Your task to perform on an android device: make emails show in primary in the gmail app Image 0: 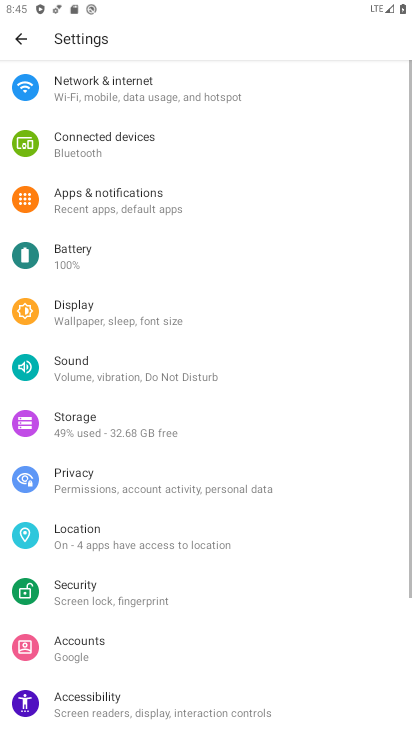
Step 0: press home button
Your task to perform on an android device: make emails show in primary in the gmail app Image 1: 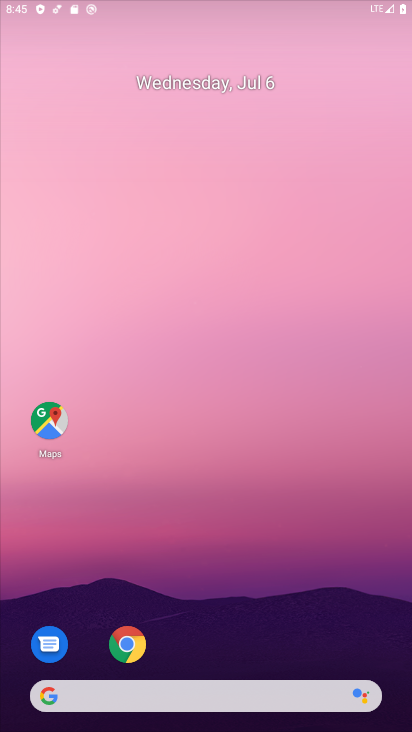
Step 1: drag from (218, 635) to (210, 82)
Your task to perform on an android device: make emails show in primary in the gmail app Image 2: 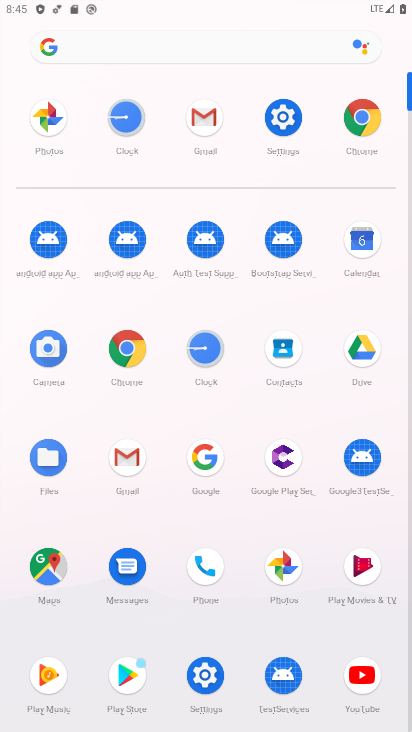
Step 2: click (215, 125)
Your task to perform on an android device: make emails show in primary in the gmail app Image 3: 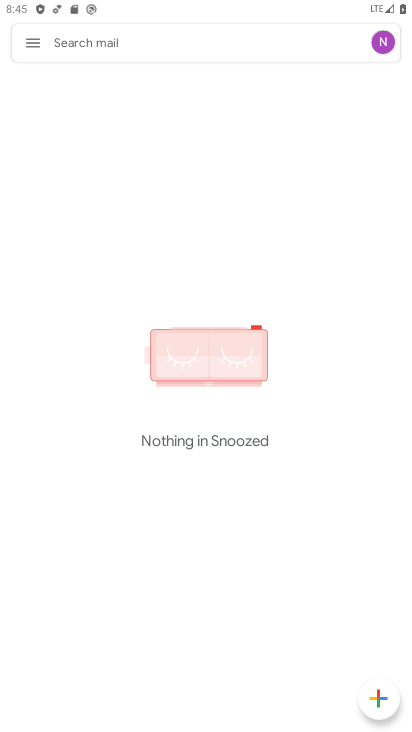
Step 3: click (28, 42)
Your task to perform on an android device: make emails show in primary in the gmail app Image 4: 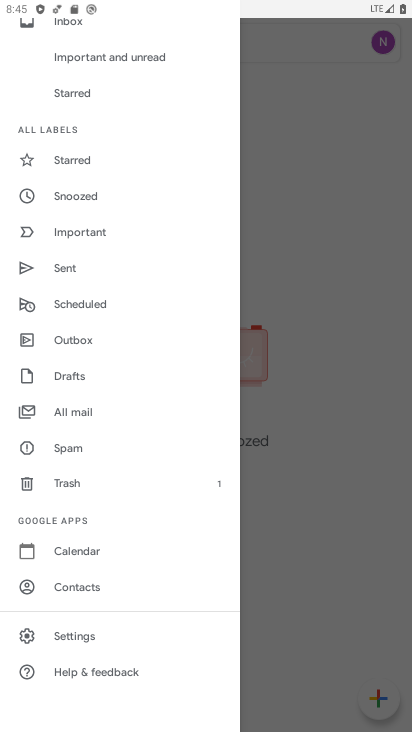
Step 4: click (71, 624)
Your task to perform on an android device: make emails show in primary in the gmail app Image 5: 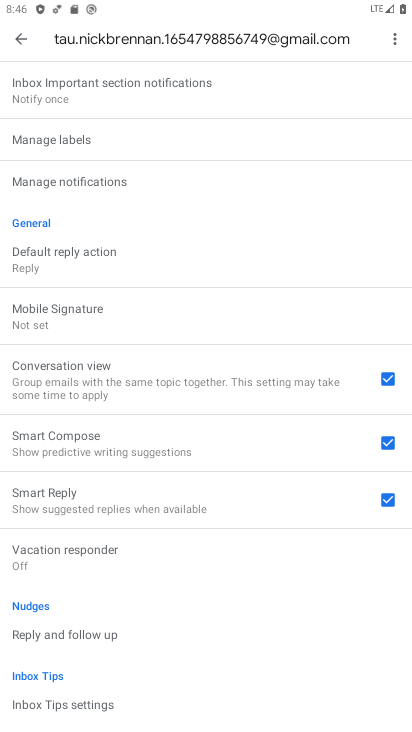
Step 5: drag from (124, 148) to (136, 663)
Your task to perform on an android device: make emails show in primary in the gmail app Image 6: 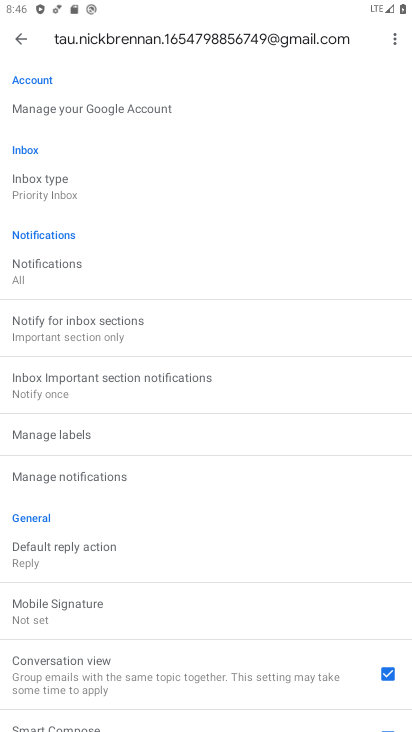
Step 6: drag from (134, 186) to (136, 532)
Your task to perform on an android device: make emails show in primary in the gmail app Image 7: 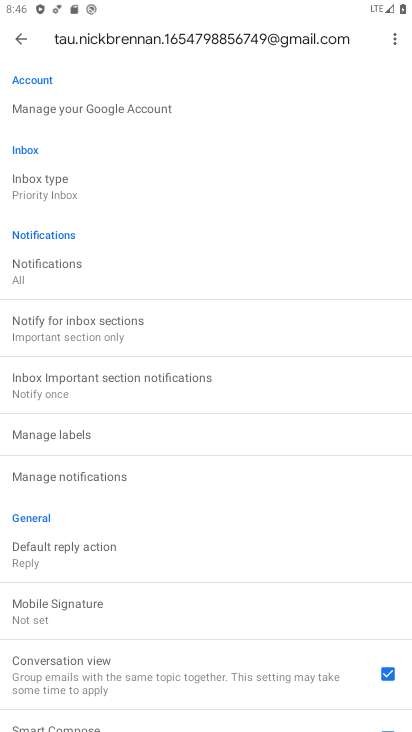
Step 7: click (94, 180)
Your task to perform on an android device: make emails show in primary in the gmail app Image 8: 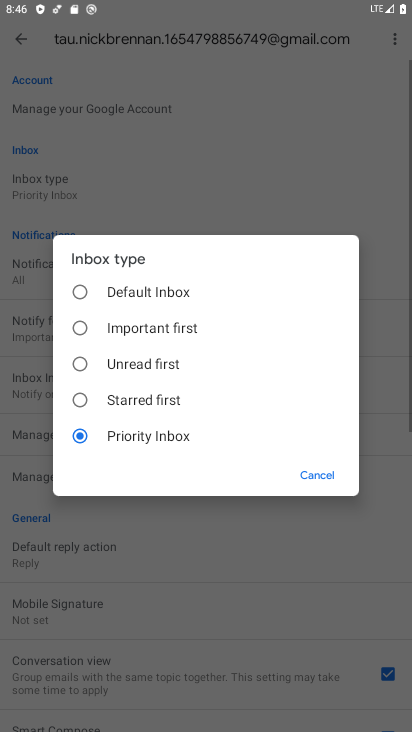
Step 8: click (129, 289)
Your task to perform on an android device: make emails show in primary in the gmail app Image 9: 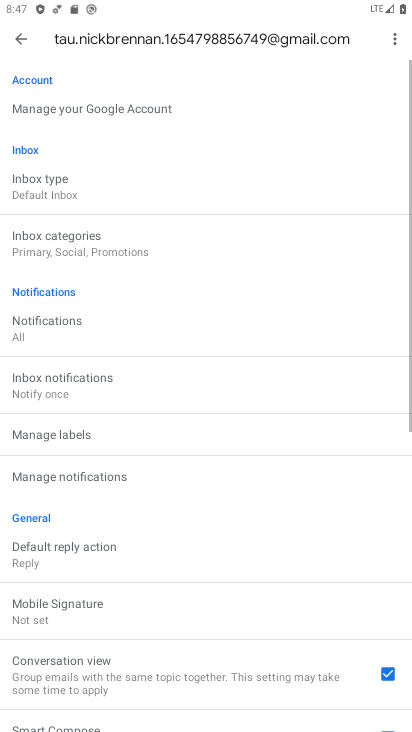
Step 9: click (117, 251)
Your task to perform on an android device: make emails show in primary in the gmail app Image 10: 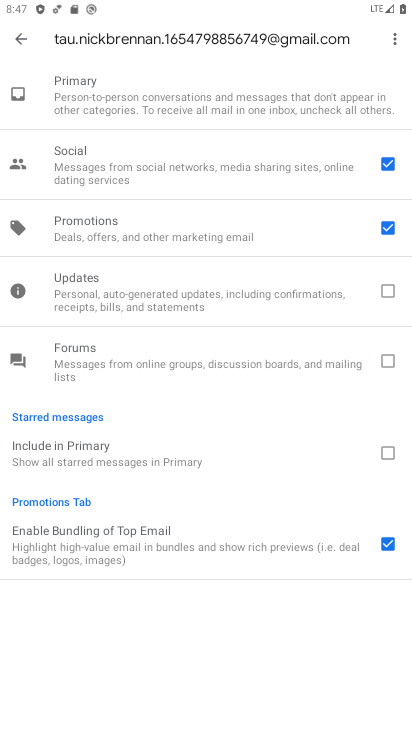
Step 10: click (125, 107)
Your task to perform on an android device: make emails show in primary in the gmail app Image 11: 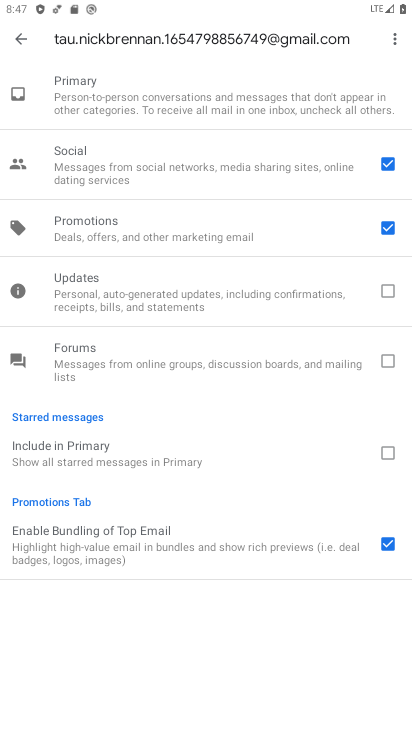
Step 11: task complete